Your task to perform on an android device: What is the capital of Norway? Image 0: 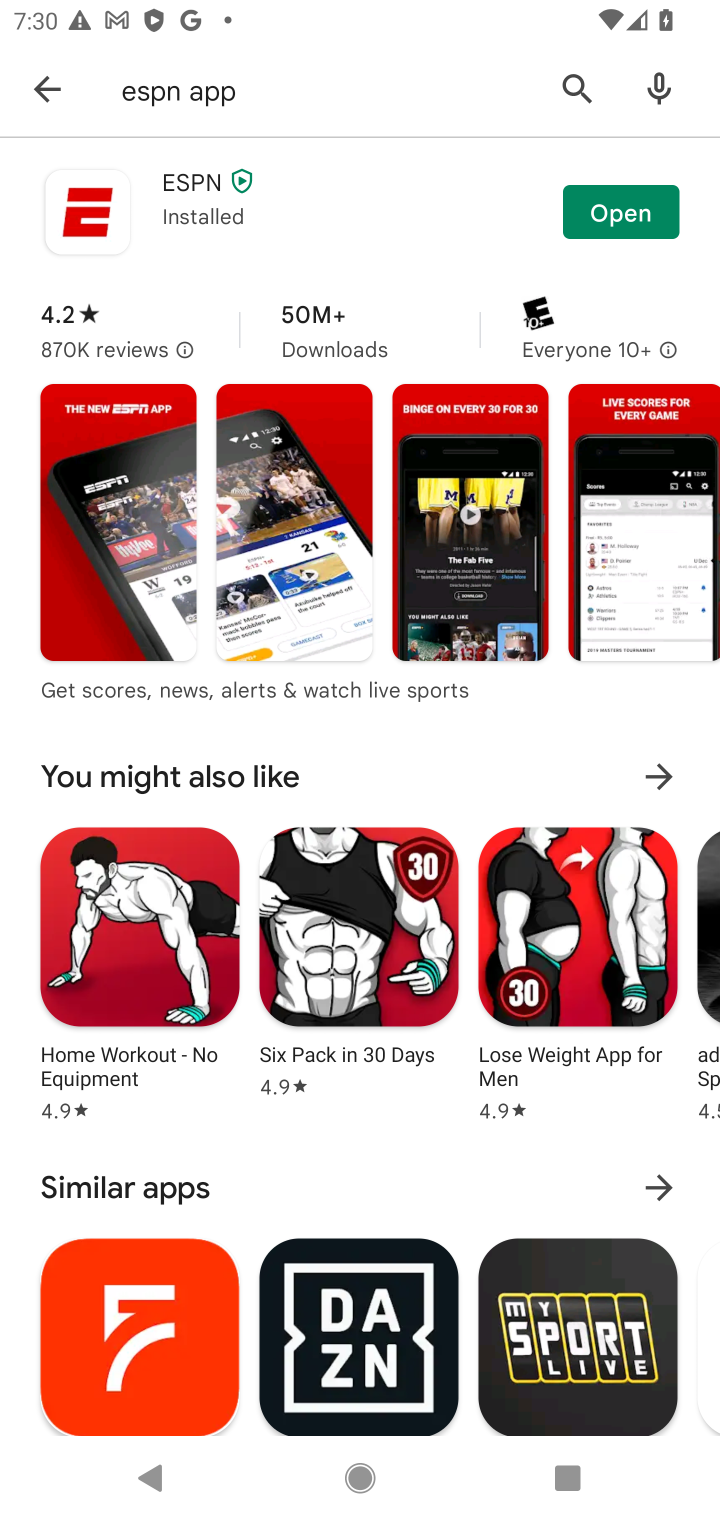
Step 0: press home button
Your task to perform on an android device: What is the capital of Norway? Image 1: 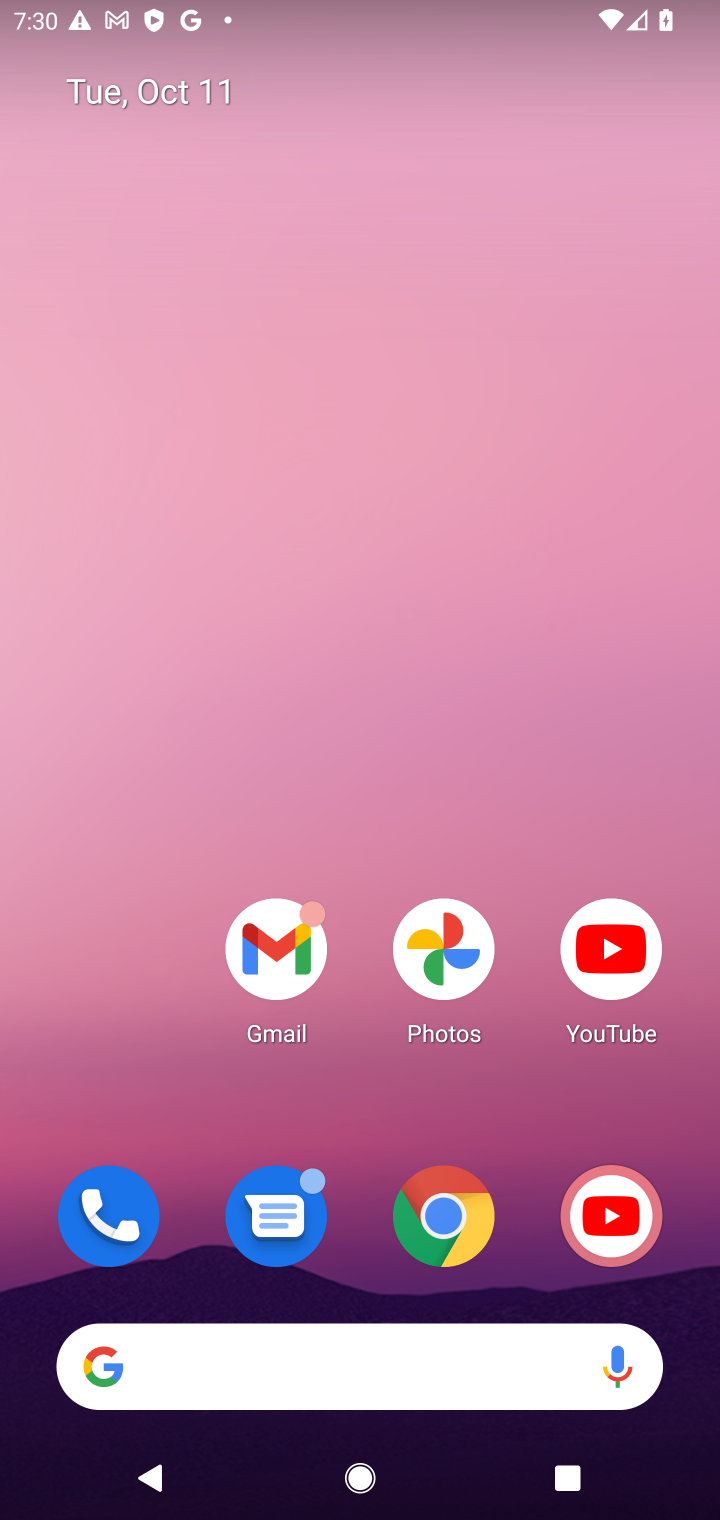
Step 1: click (428, 1254)
Your task to perform on an android device: What is the capital of Norway? Image 2: 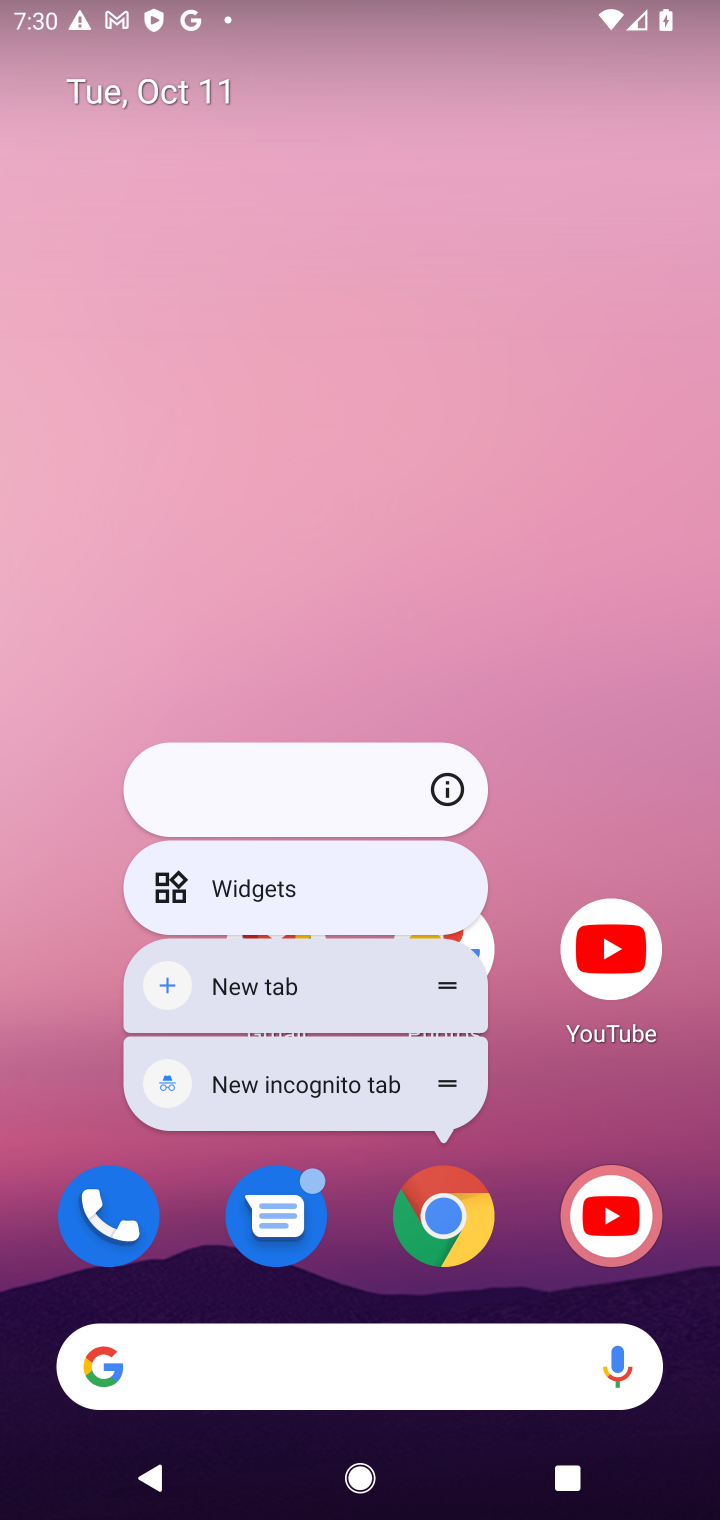
Step 2: click (409, 1226)
Your task to perform on an android device: What is the capital of Norway? Image 3: 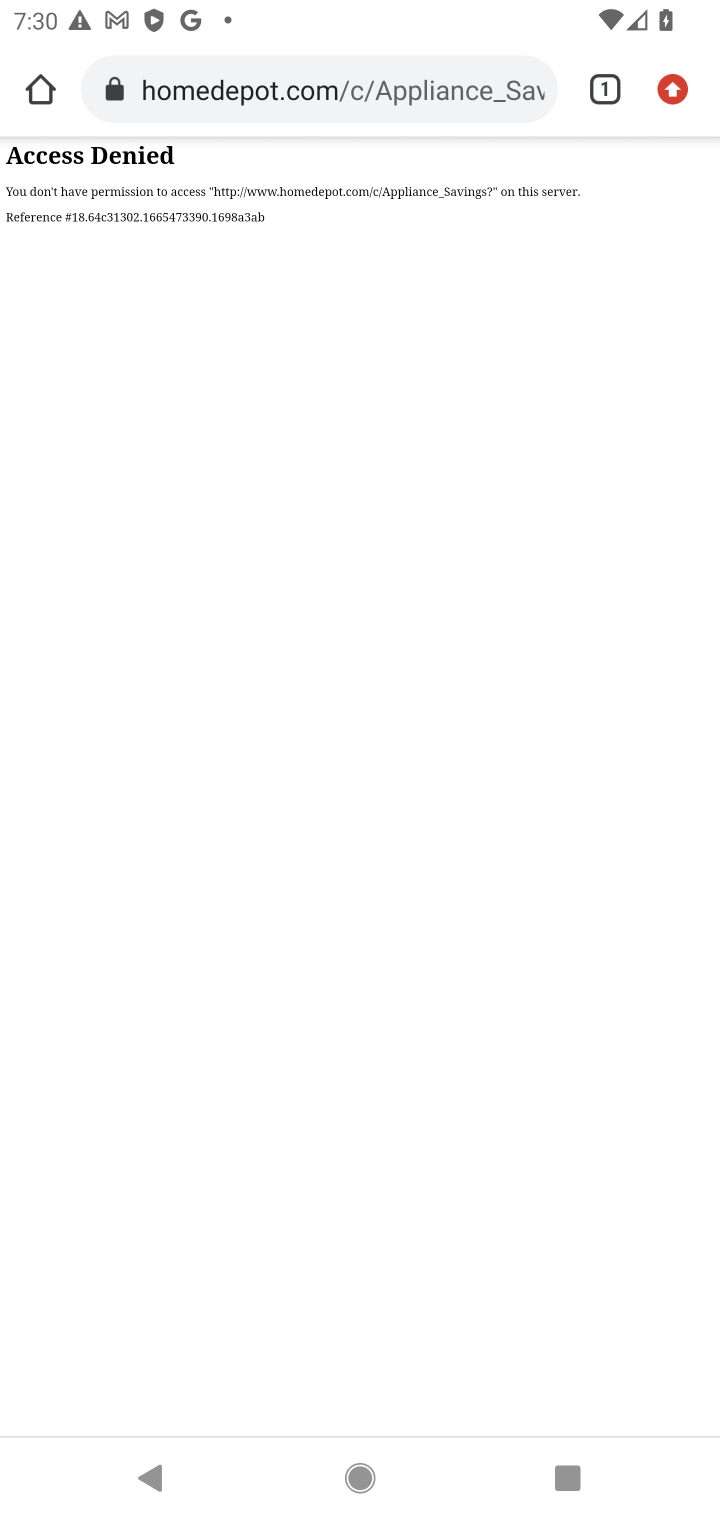
Step 3: click (338, 84)
Your task to perform on an android device: What is the capital of Norway? Image 4: 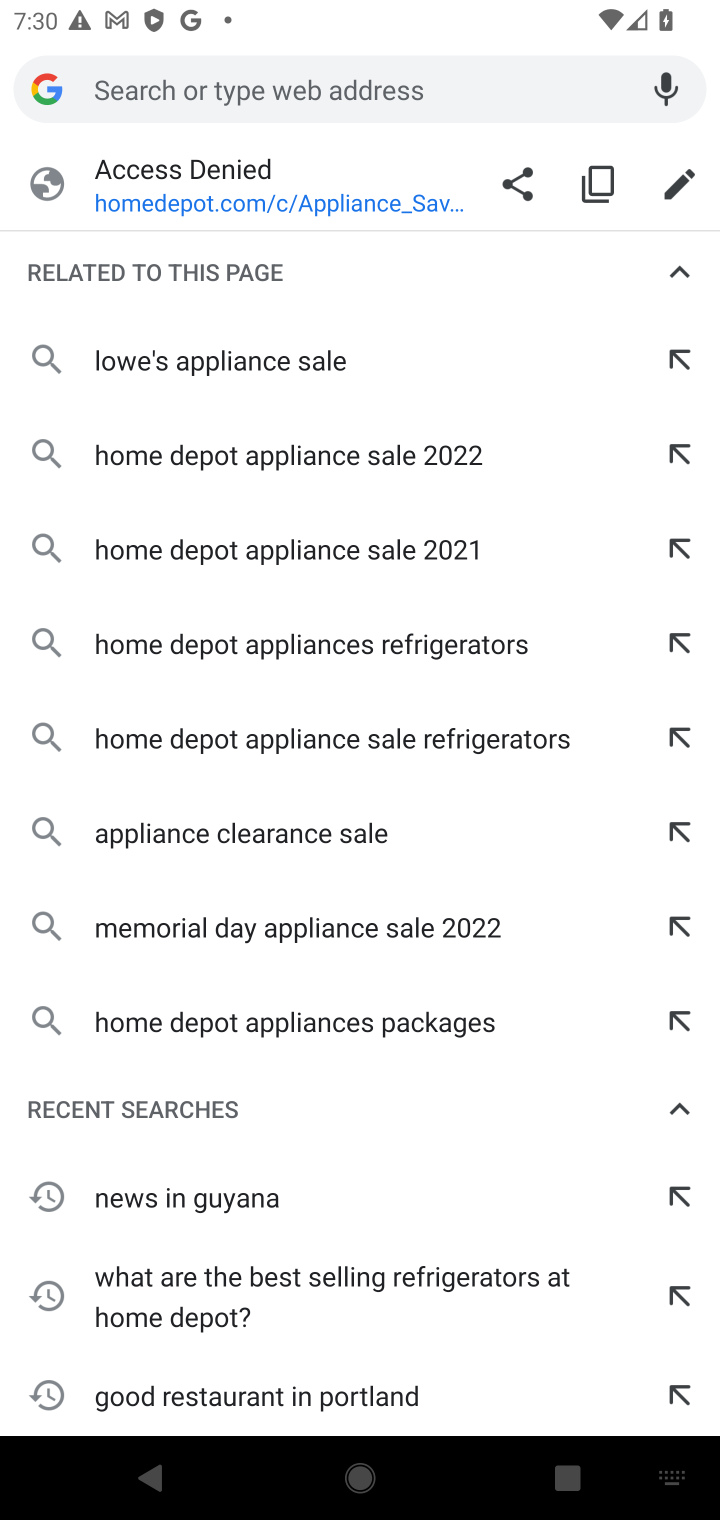
Step 4: type "capital of norway"
Your task to perform on an android device: What is the capital of Norway? Image 5: 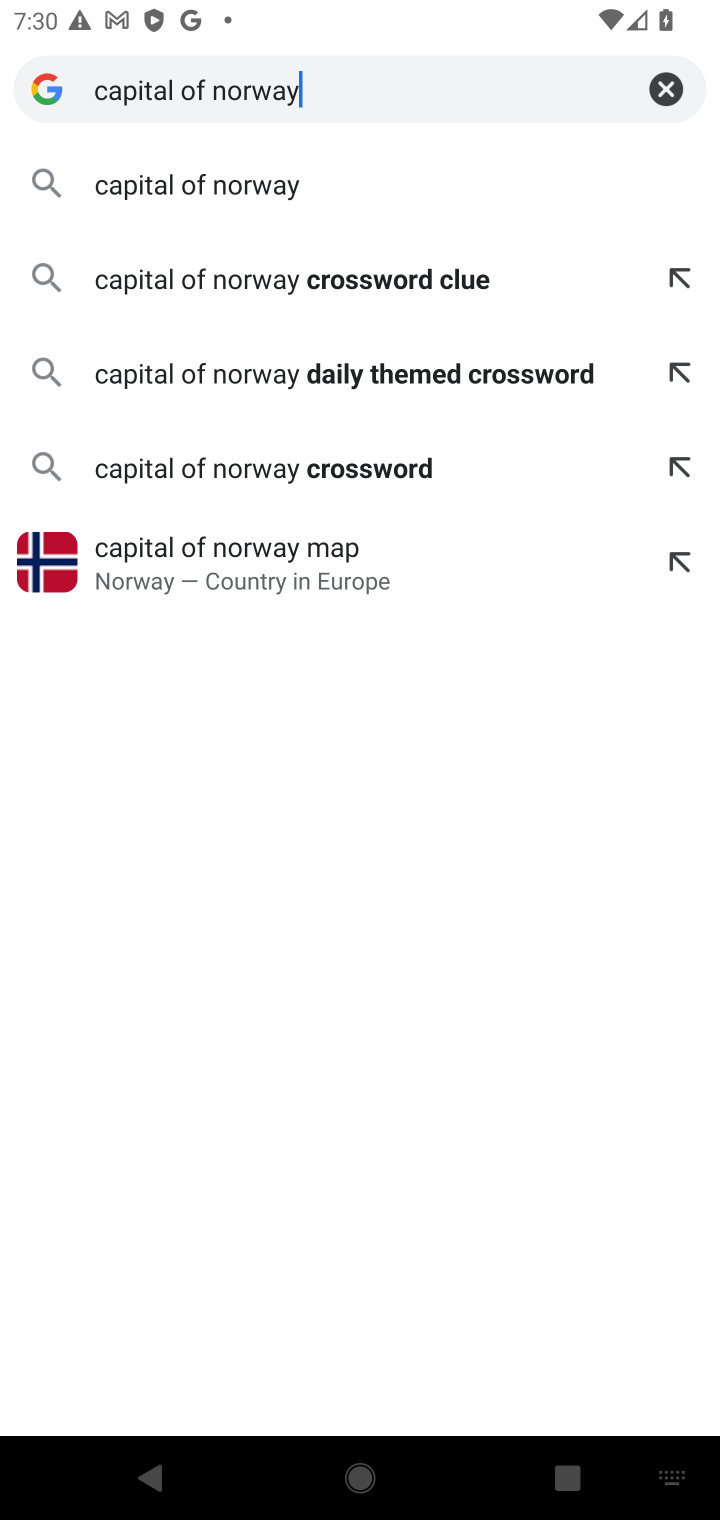
Step 5: click (300, 187)
Your task to perform on an android device: What is the capital of Norway? Image 6: 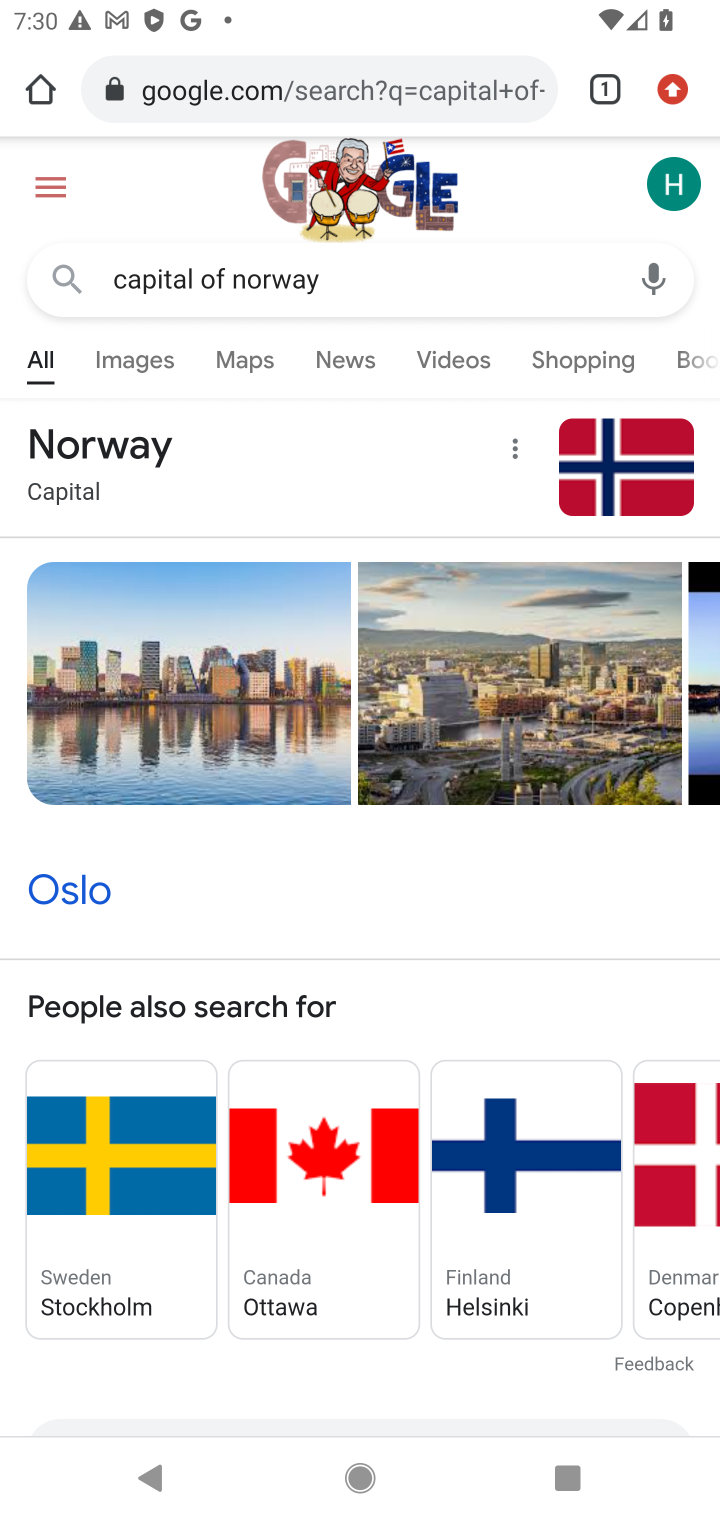
Step 6: task complete